Your task to perform on an android device: stop showing notifications on the lock screen Image 0: 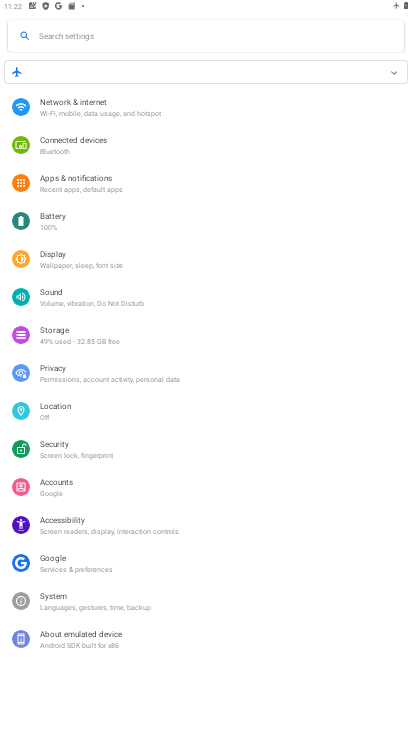
Step 0: press home button
Your task to perform on an android device: stop showing notifications on the lock screen Image 1: 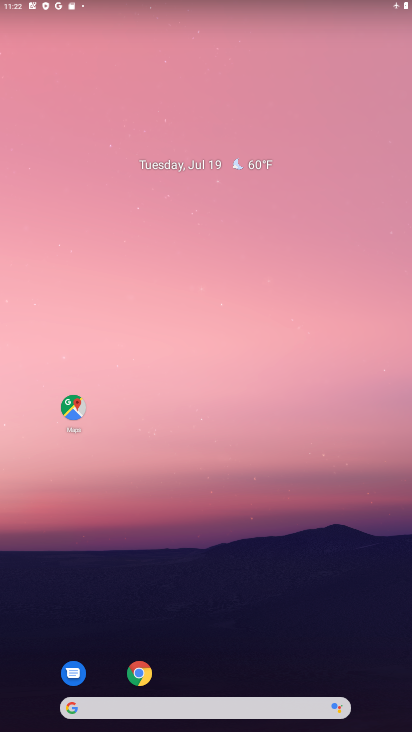
Step 1: drag from (385, 657) to (316, 148)
Your task to perform on an android device: stop showing notifications on the lock screen Image 2: 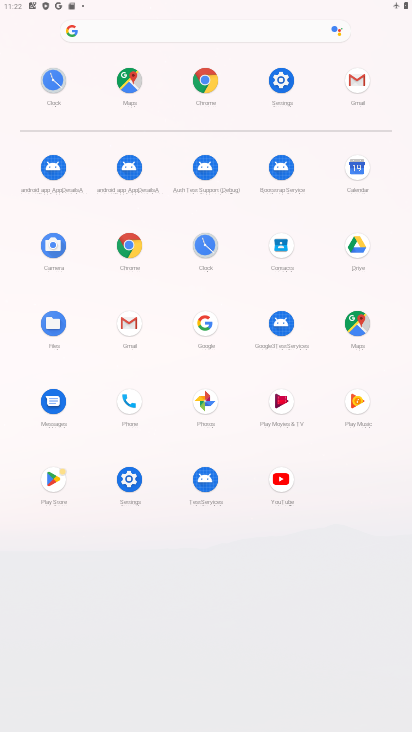
Step 2: click (129, 479)
Your task to perform on an android device: stop showing notifications on the lock screen Image 3: 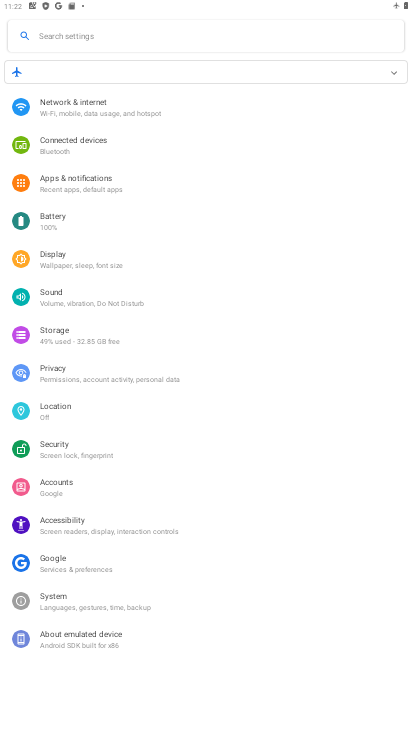
Step 3: click (68, 180)
Your task to perform on an android device: stop showing notifications on the lock screen Image 4: 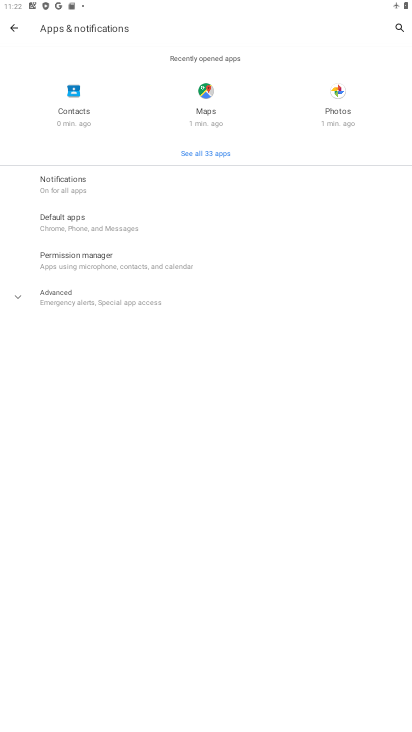
Step 4: click (55, 182)
Your task to perform on an android device: stop showing notifications on the lock screen Image 5: 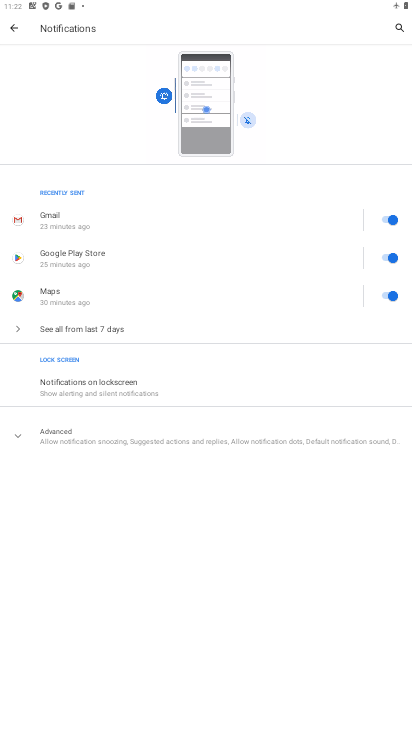
Step 5: click (78, 380)
Your task to perform on an android device: stop showing notifications on the lock screen Image 6: 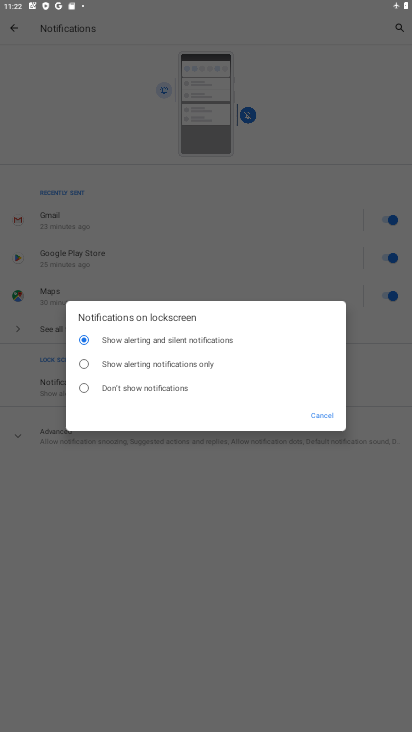
Step 6: click (82, 387)
Your task to perform on an android device: stop showing notifications on the lock screen Image 7: 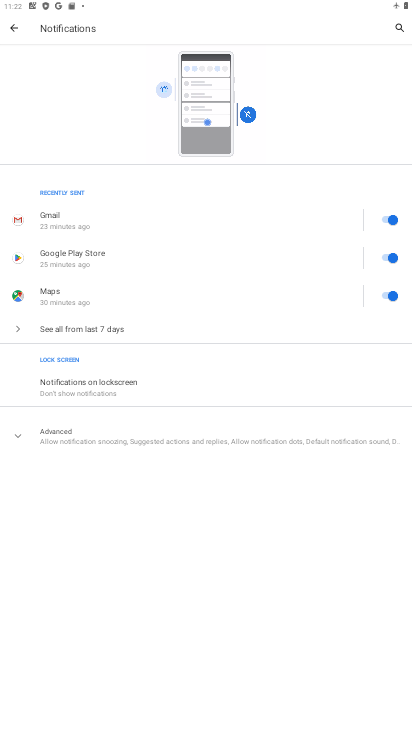
Step 7: task complete